Your task to perform on an android device: Open Google Chrome Image 0: 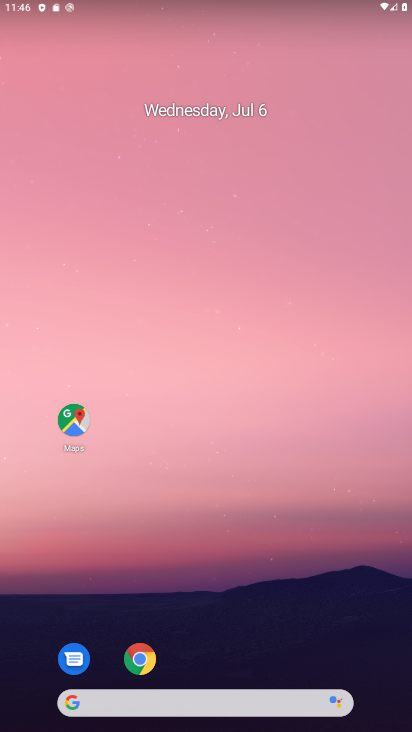
Step 0: click (397, 477)
Your task to perform on an android device: Open Google Chrome Image 1: 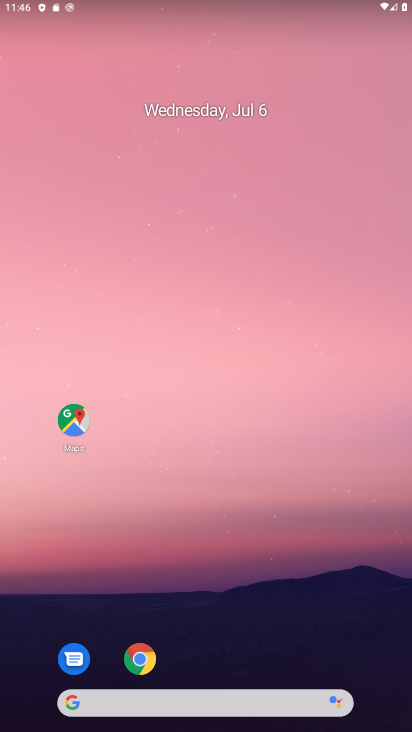
Step 1: drag from (271, 685) to (125, 202)
Your task to perform on an android device: Open Google Chrome Image 2: 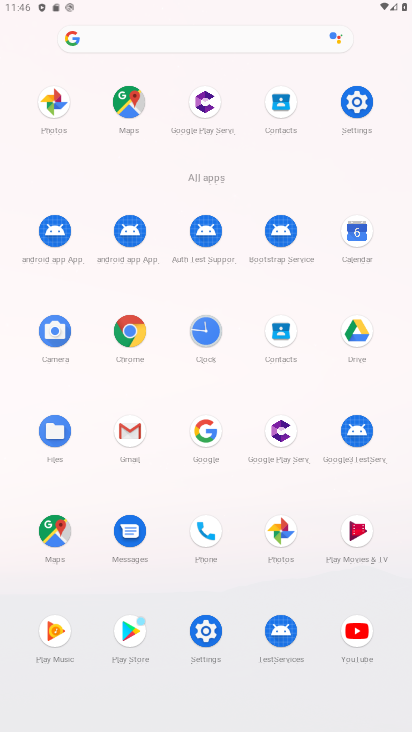
Step 2: click (136, 329)
Your task to perform on an android device: Open Google Chrome Image 3: 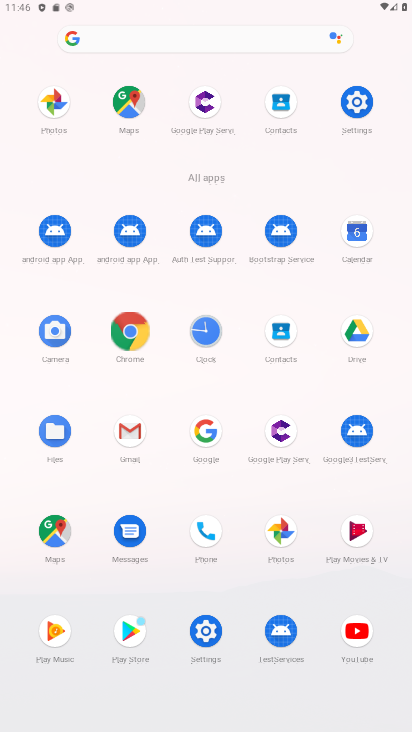
Step 3: click (133, 335)
Your task to perform on an android device: Open Google Chrome Image 4: 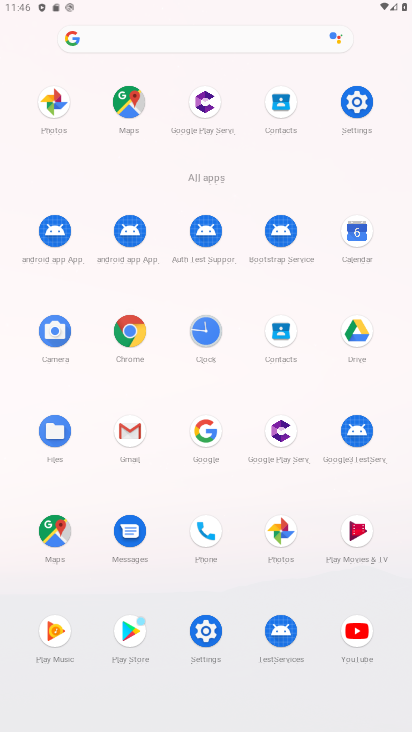
Step 4: click (133, 335)
Your task to perform on an android device: Open Google Chrome Image 5: 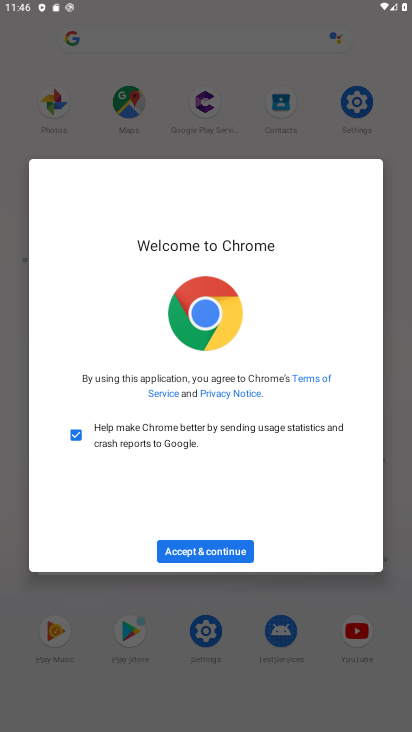
Step 5: click (223, 552)
Your task to perform on an android device: Open Google Chrome Image 6: 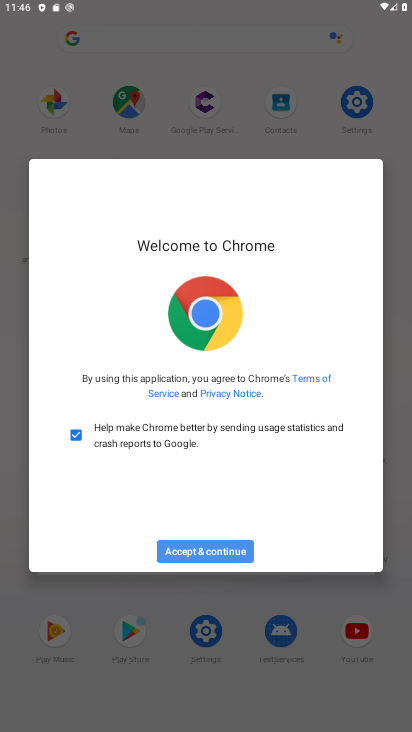
Step 6: click (231, 559)
Your task to perform on an android device: Open Google Chrome Image 7: 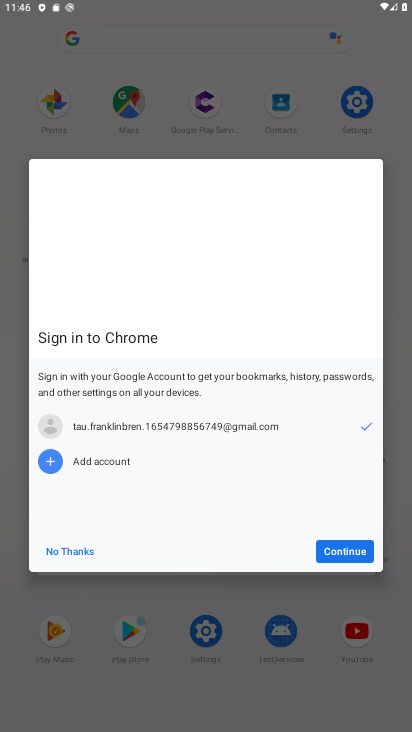
Step 7: click (352, 562)
Your task to perform on an android device: Open Google Chrome Image 8: 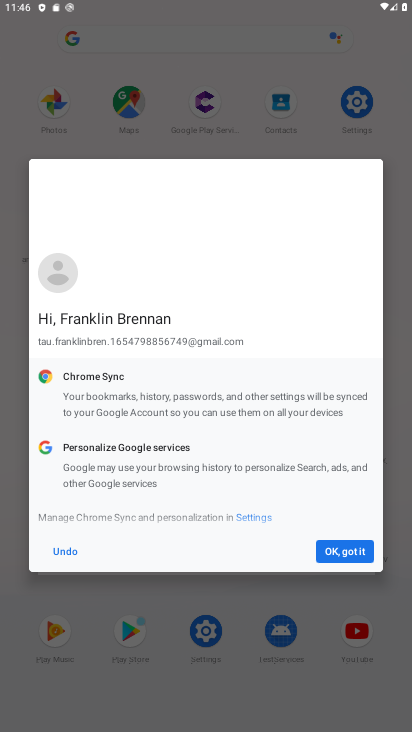
Step 8: click (354, 557)
Your task to perform on an android device: Open Google Chrome Image 9: 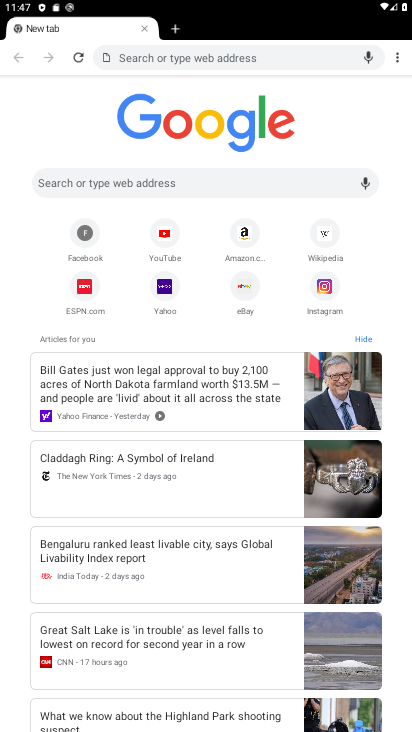
Step 9: press back button
Your task to perform on an android device: Open Google Chrome Image 10: 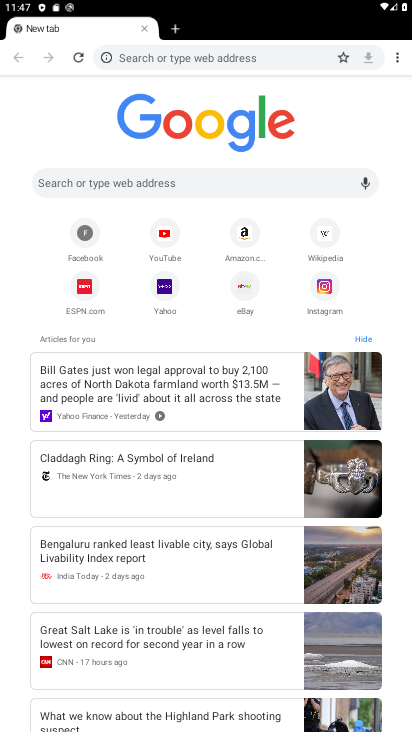
Step 10: press home button
Your task to perform on an android device: Open Google Chrome Image 11: 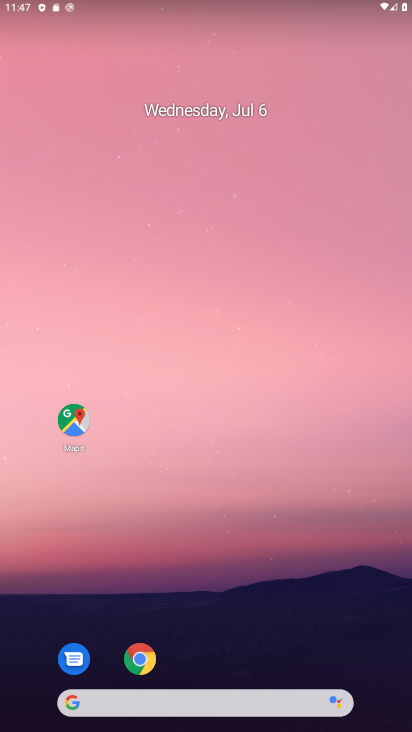
Step 11: drag from (218, 723) to (161, 140)
Your task to perform on an android device: Open Google Chrome Image 12: 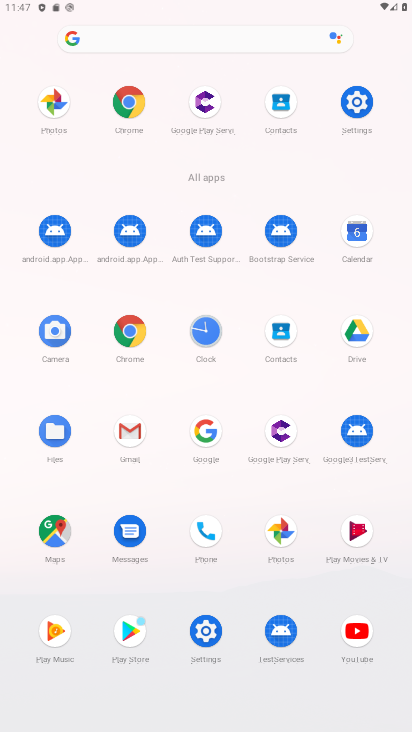
Step 12: click (124, 339)
Your task to perform on an android device: Open Google Chrome Image 13: 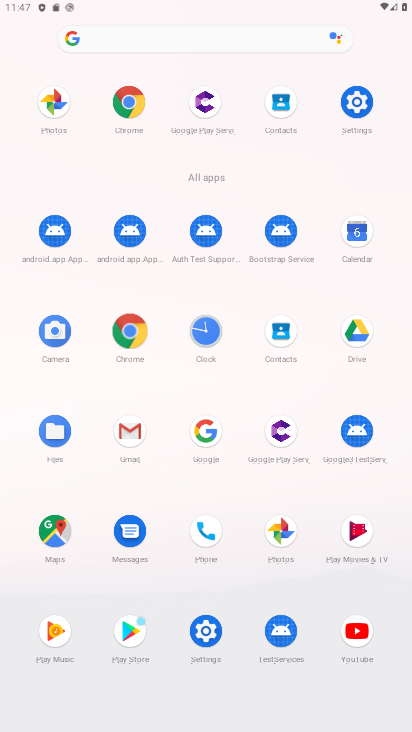
Step 13: click (118, 341)
Your task to perform on an android device: Open Google Chrome Image 14: 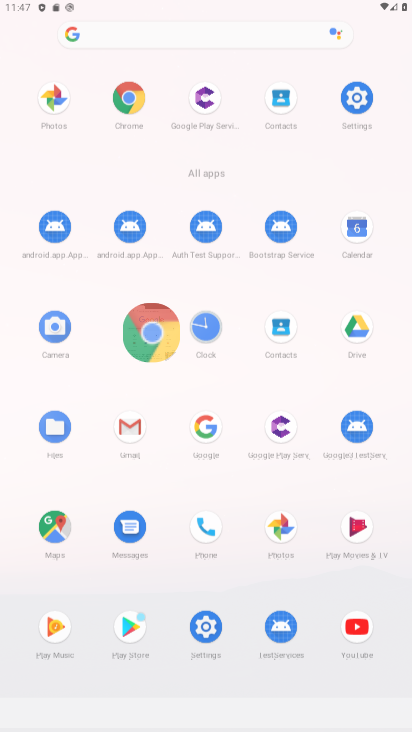
Step 14: click (124, 331)
Your task to perform on an android device: Open Google Chrome Image 15: 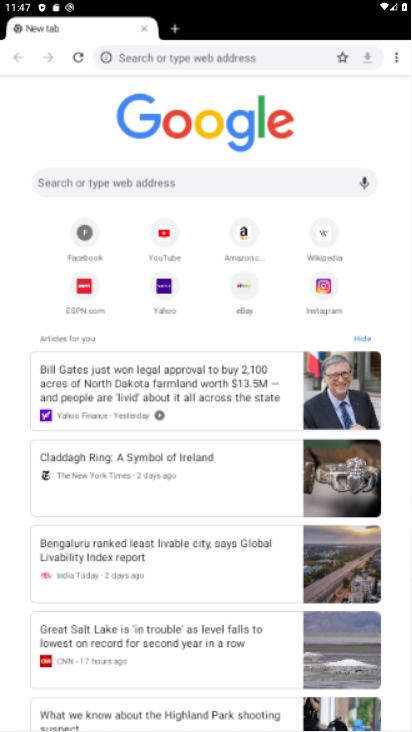
Step 15: click (128, 332)
Your task to perform on an android device: Open Google Chrome Image 16: 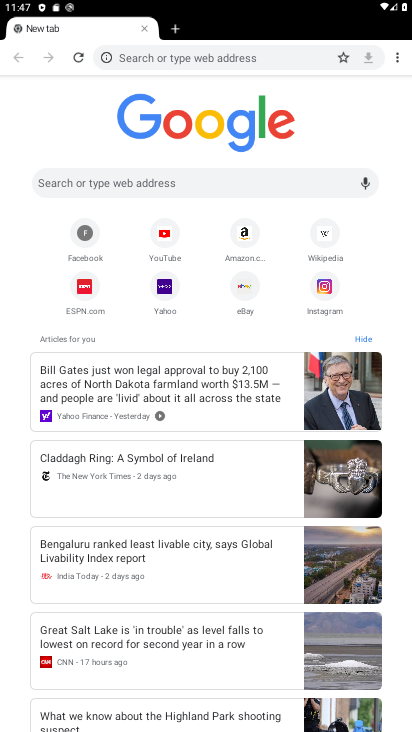
Step 16: drag from (247, 647) to (187, 407)
Your task to perform on an android device: Open Google Chrome Image 17: 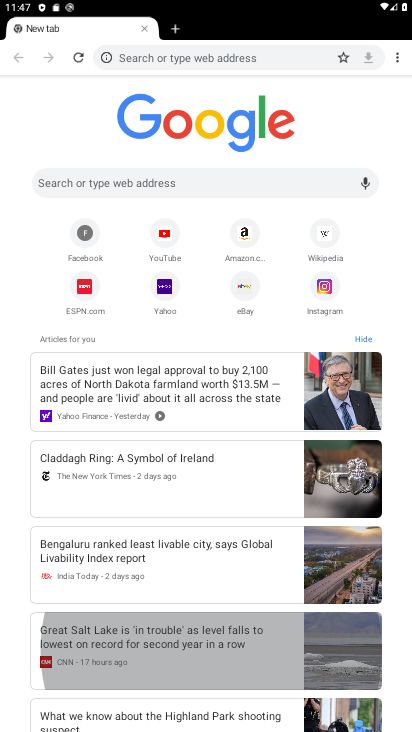
Step 17: drag from (266, 642) to (169, 171)
Your task to perform on an android device: Open Google Chrome Image 18: 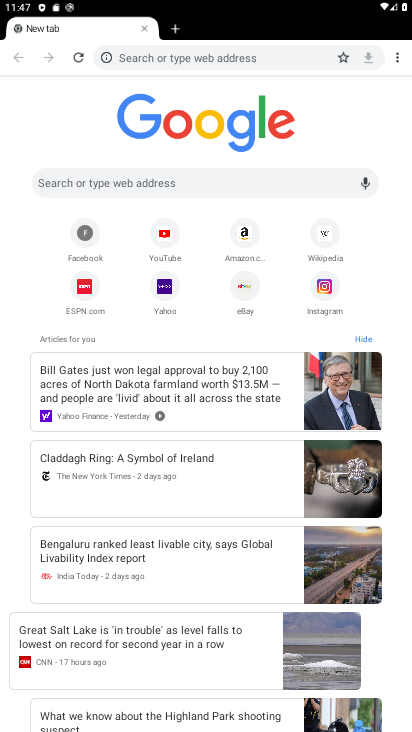
Step 18: drag from (247, 549) to (174, 165)
Your task to perform on an android device: Open Google Chrome Image 19: 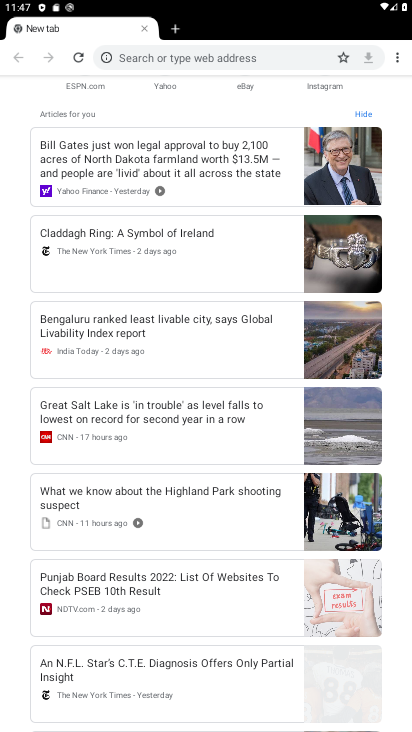
Step 19: drag from (275, 521) to (222, 281)
Your task to perform on an android device: Open Google Chrome Image 20: 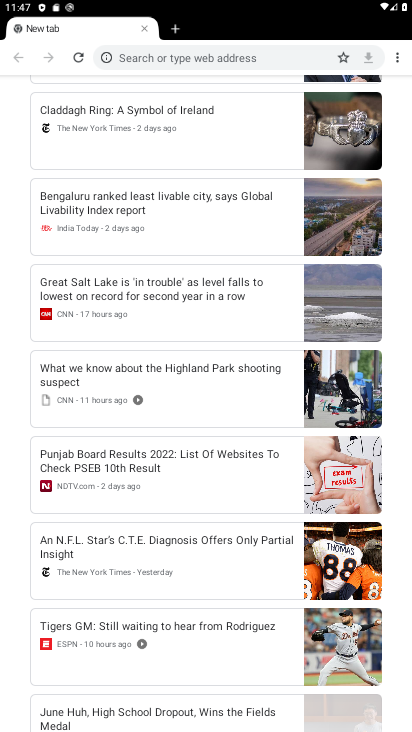
Step 20: click (205, 614)
Your task to perform on an android device: Open Google Chrome Image 21: 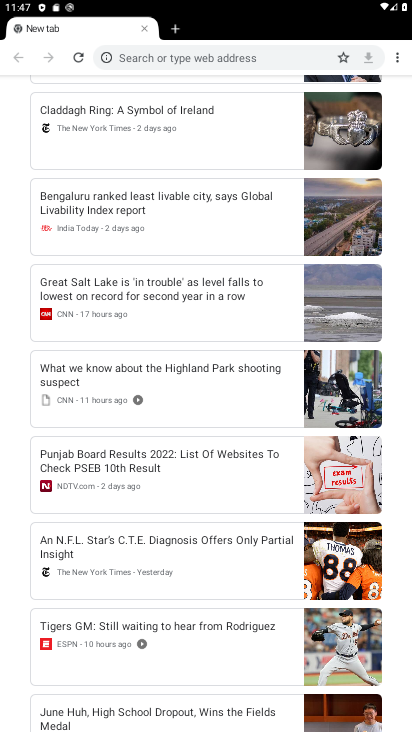
Step 21: task complete